Your task to perform on an android device: turn on javascript in the chrome app Image 0: 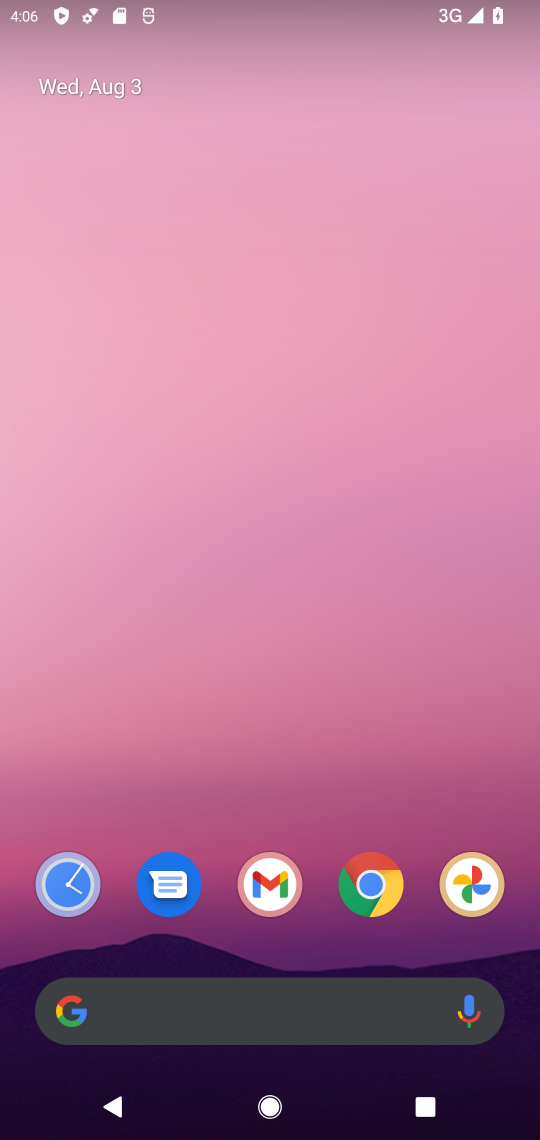
Step 0: click (380, 876)
Your task to perform on an android device: turn on javascript in the chrome app Image 1: 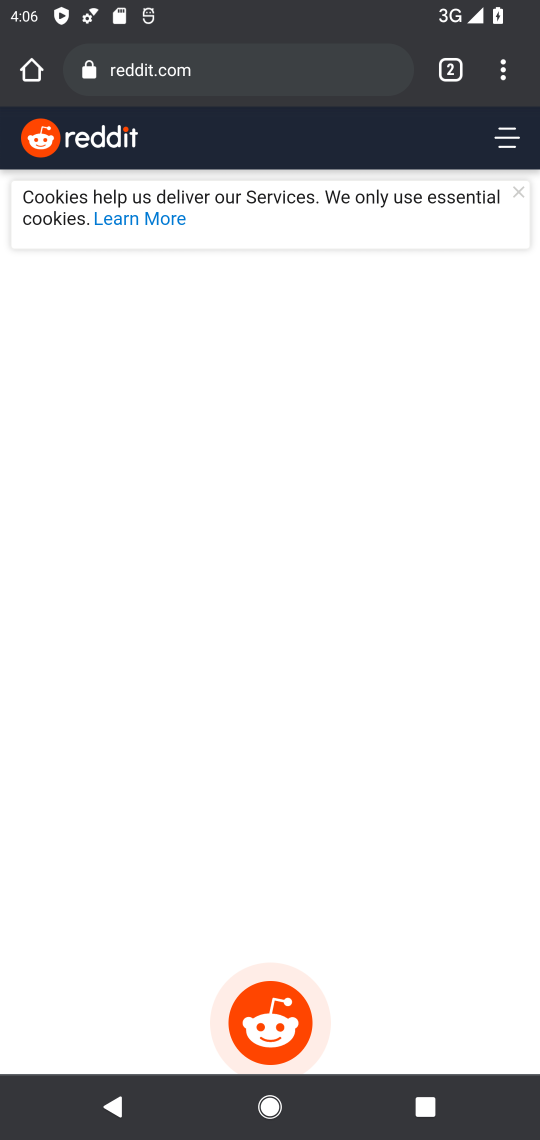
Step 1: click (498, 87)
Your task to perform on an android device: turn on javascript in the chrome app Image 2: 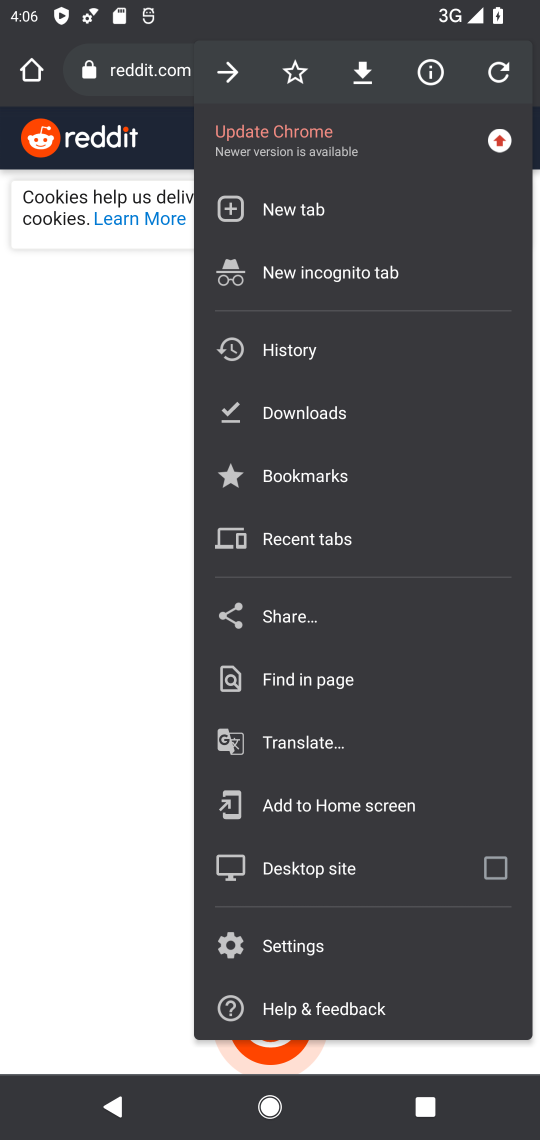
Step 2: click (299, 942)
Your task to perform on an android device: turn on javascript in the chrome app Image 3: 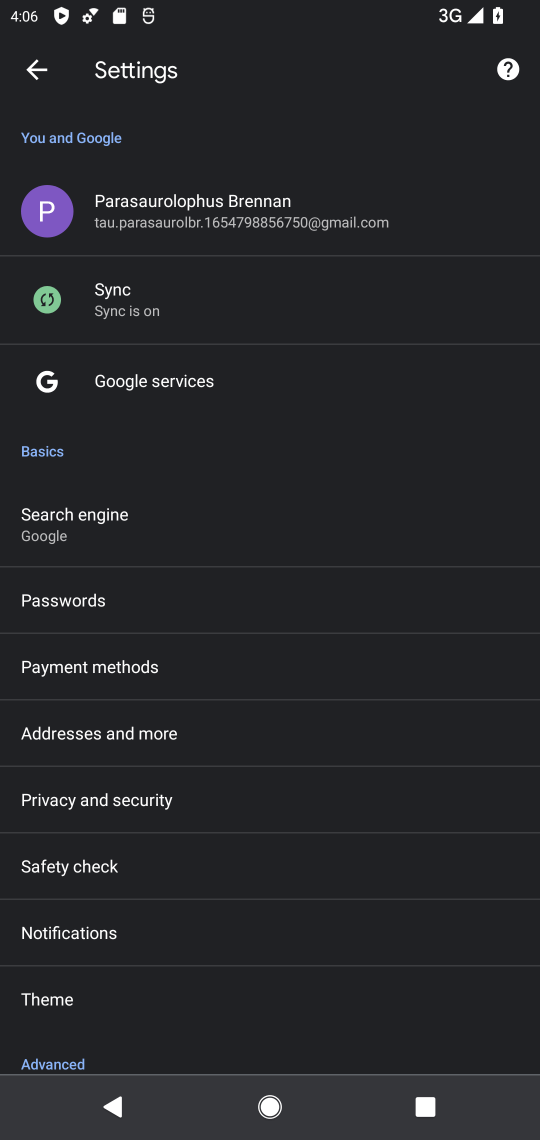
Step 3: drag from (113, 978) to (150, 610)
Your task to perform on an android device: turn on javascript in the chrome app Image 4: 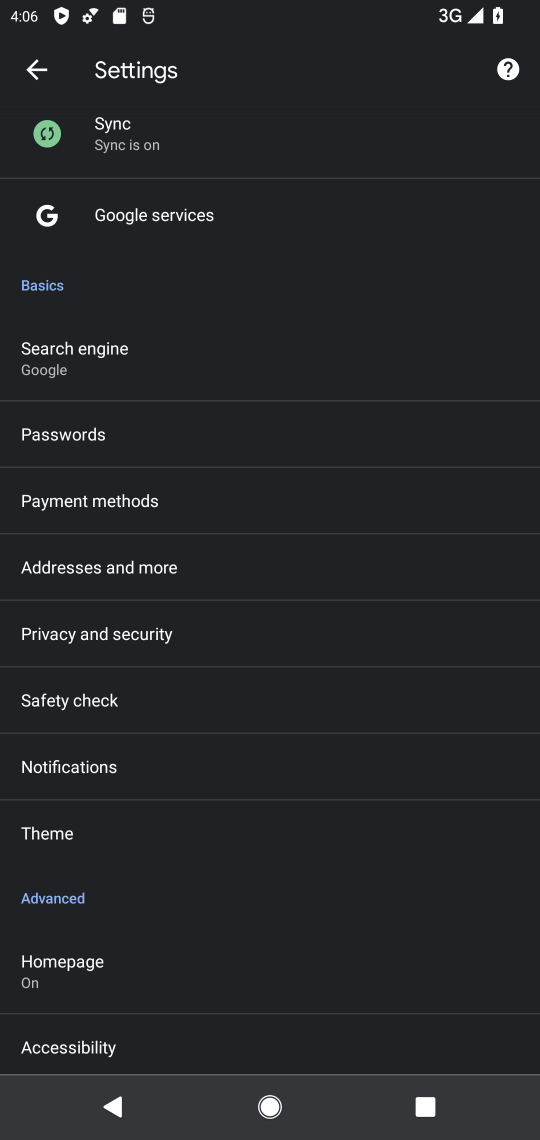
Step 4: drag from (138, 968) to (188, 698)
Your task to perform on an android device: turn on javascript in the chrome app Image 5: 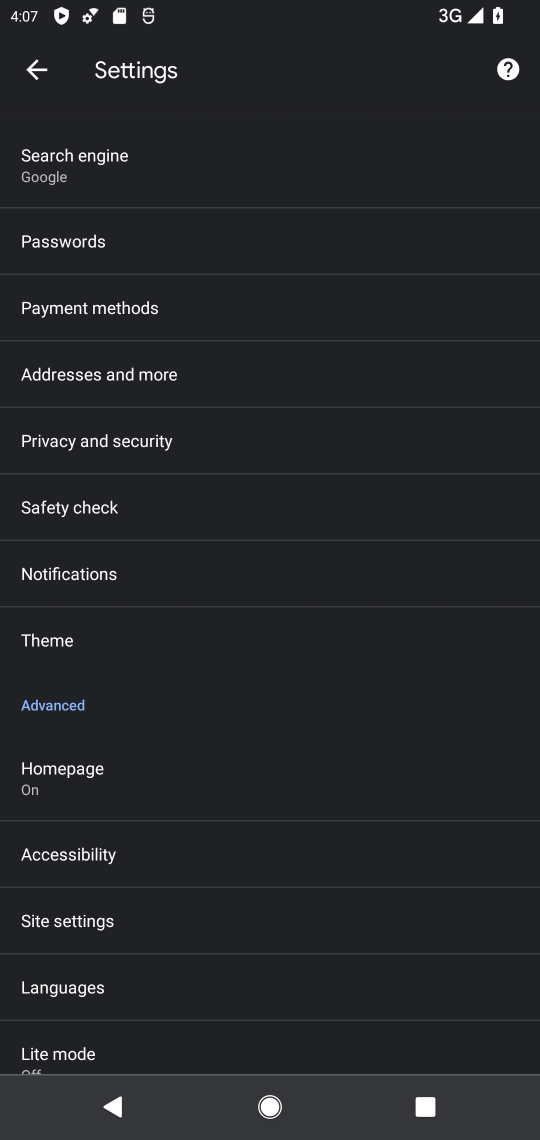
Step 5: click (119, 940)
Your task to perform on an android device: turn on javascript in the chrome app Image 6: 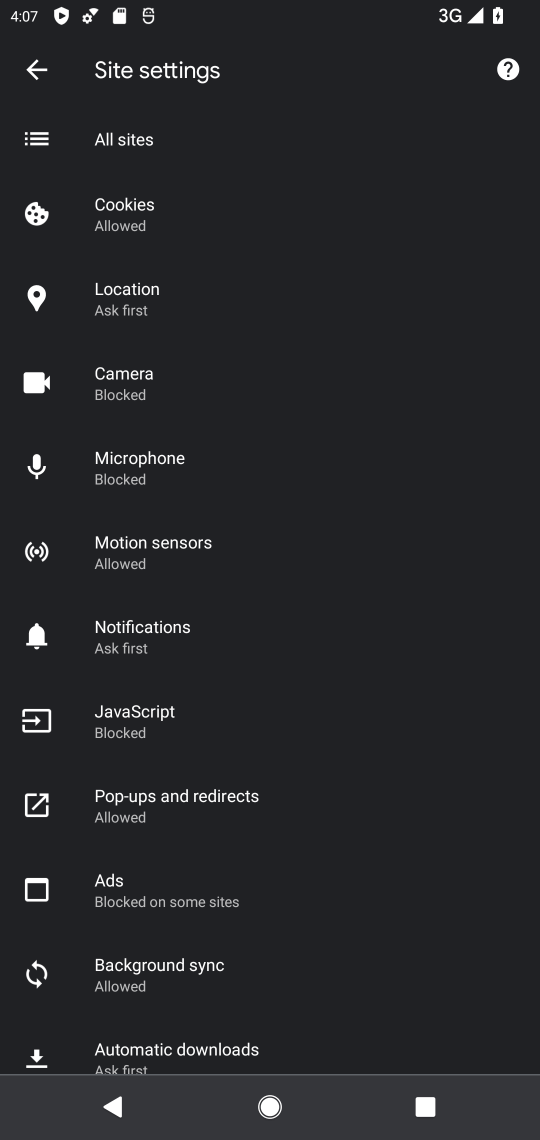
Step 6: click (242, 715)
Your task to perform on an android device: turn on javascript in the chrome app Image 7: 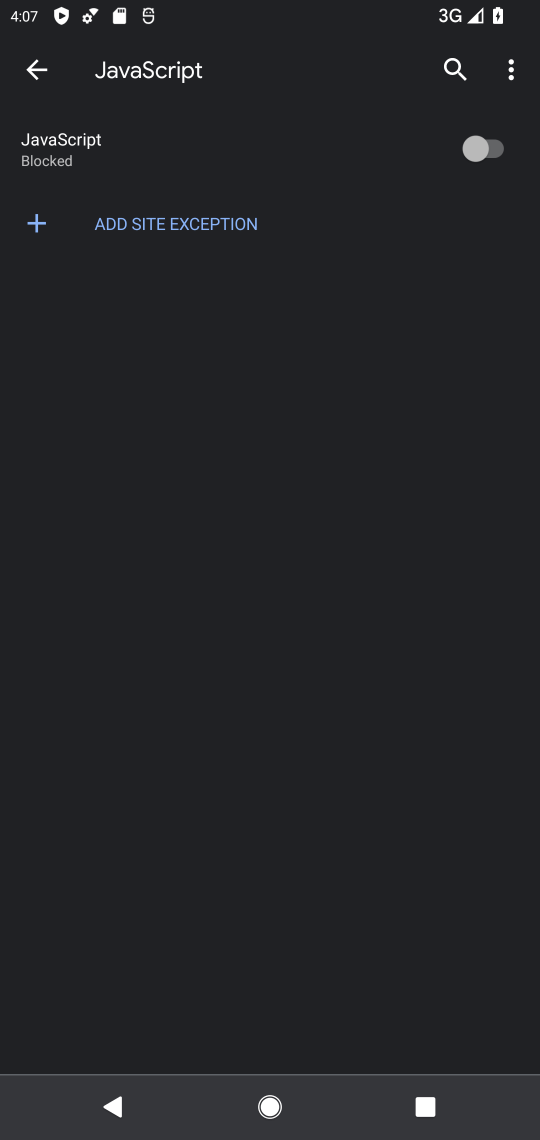
Step 7: click (466, 169)
Your task to perform on an android device: turn on javascript in the chrome app Image 8: 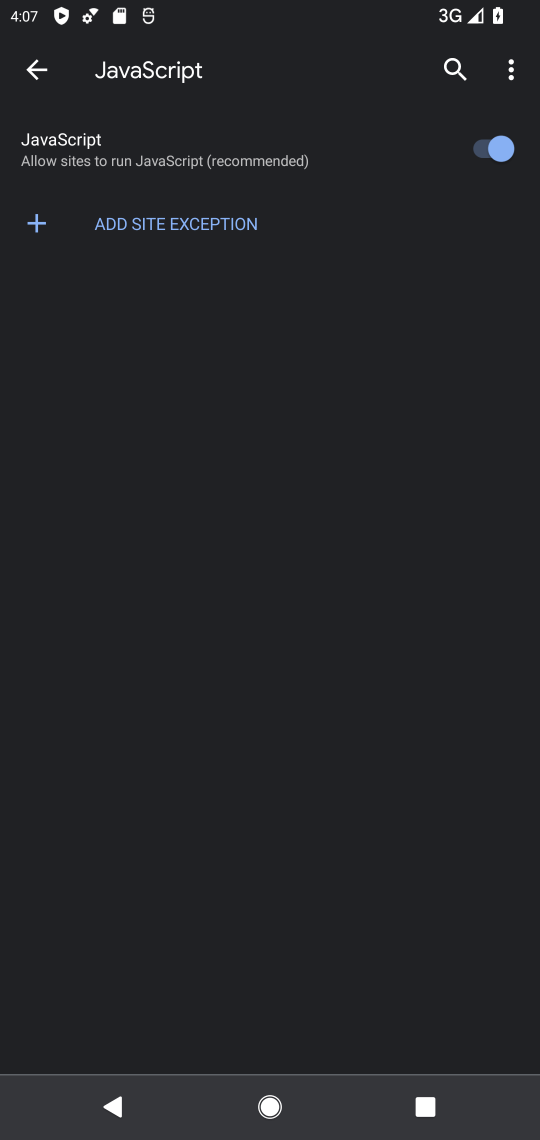
Step 8: task complete